Your task to perform on an android device: change the clock display to digital Image 0: 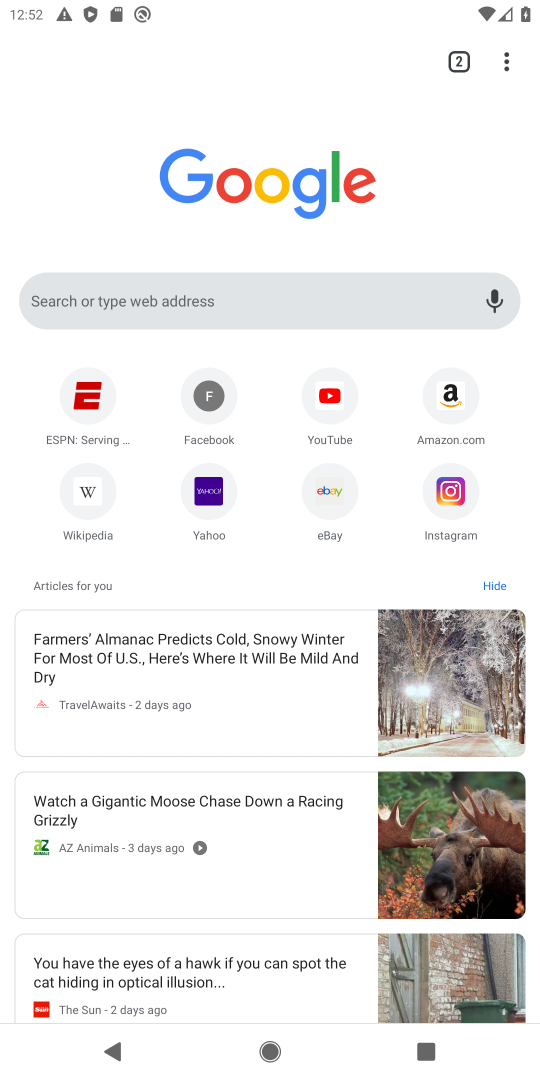
Step 0: press home button
Your task to perform on an android device: change the clock display to digital Image 1: 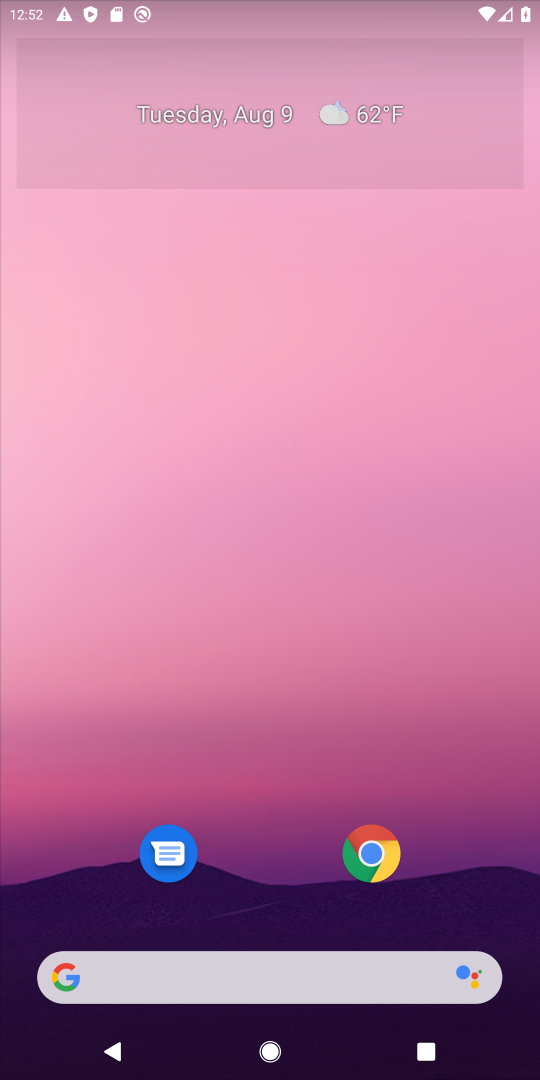
Step 1: drag from (257, 796) to (288, 17)
Your task to perform on an android device: change the clock display to digital Image 2: 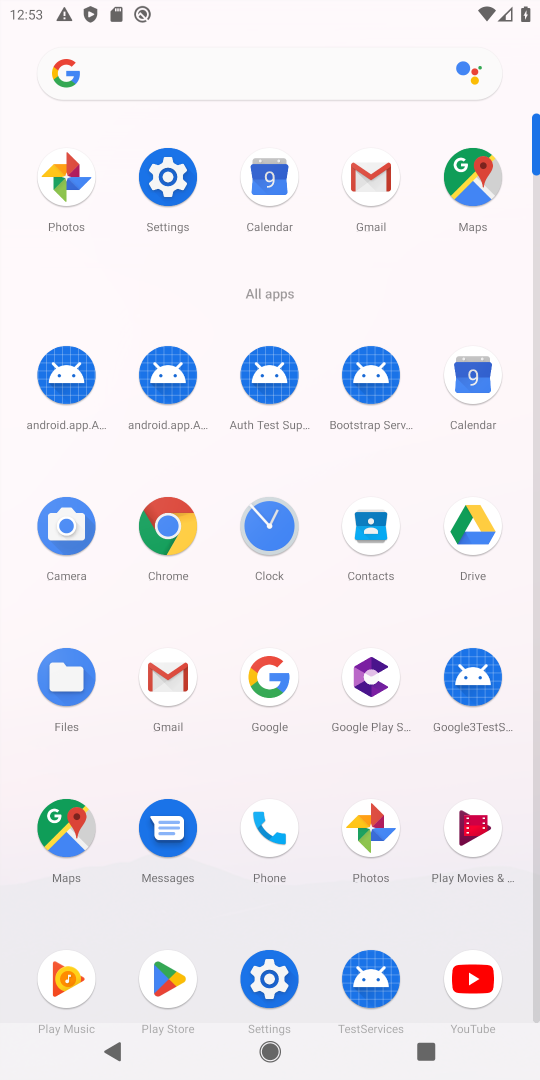
Step 2: click (264, 520)
Your task to perform on an android device: change the clock display to digital Image 3: 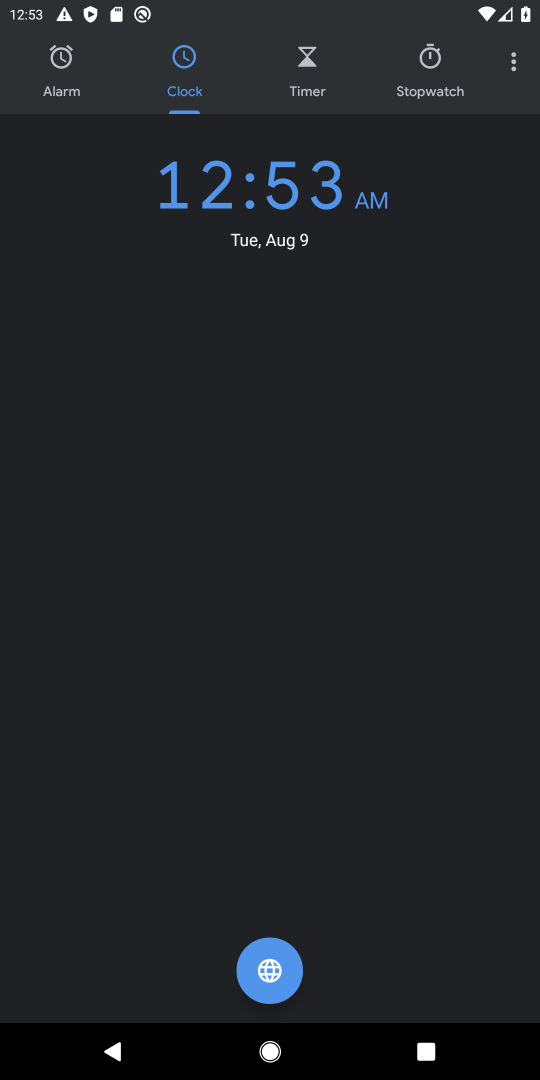
Step 3: click (510, 57)
Your task to perform on an android device: change the clock display to digital Image 4: 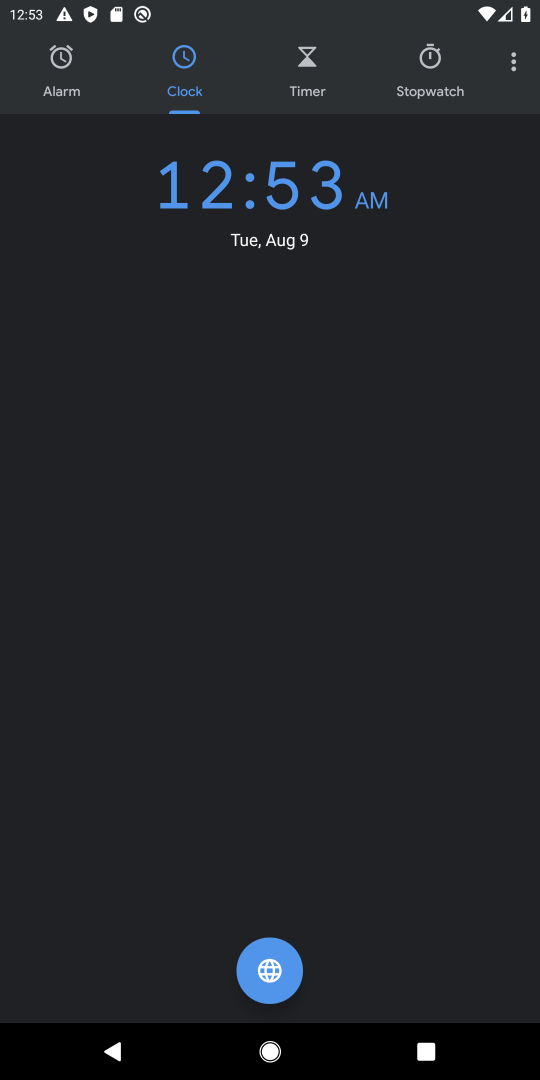
Step 4: click (507, 58)
Your task to perform on an android device: change the clock display to digital Image 5: 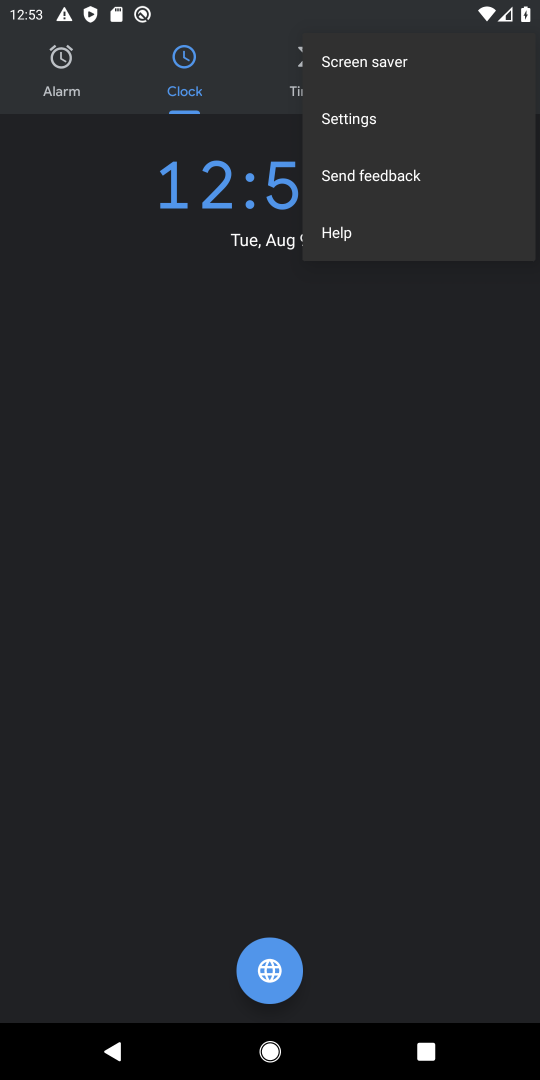
Step 5: click (358, 121)
Your task to perform on an android device: change the clock display to digital Image 6: 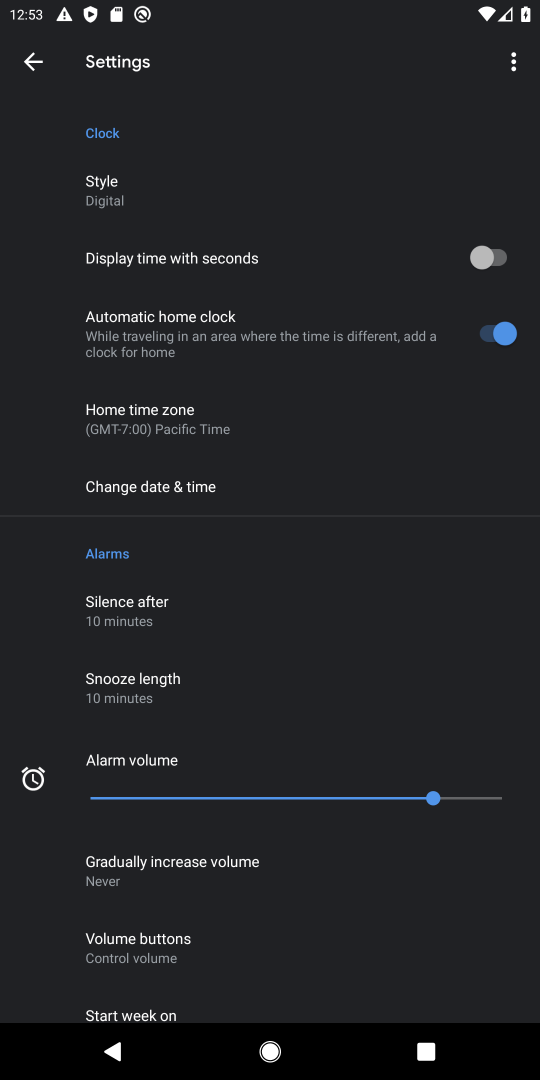
Step 6: click (155, 184)
Your task to perform on an android device: change the clock display to digital Image 7: 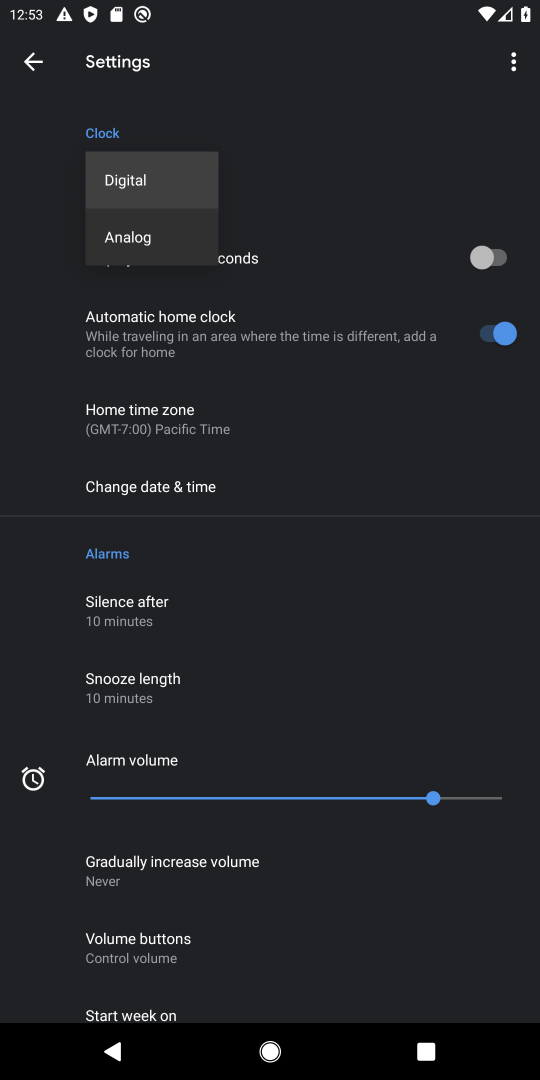
Step 7: click (138, 244)
Your task to perform on an android device: change the clock display to digital Image 8: 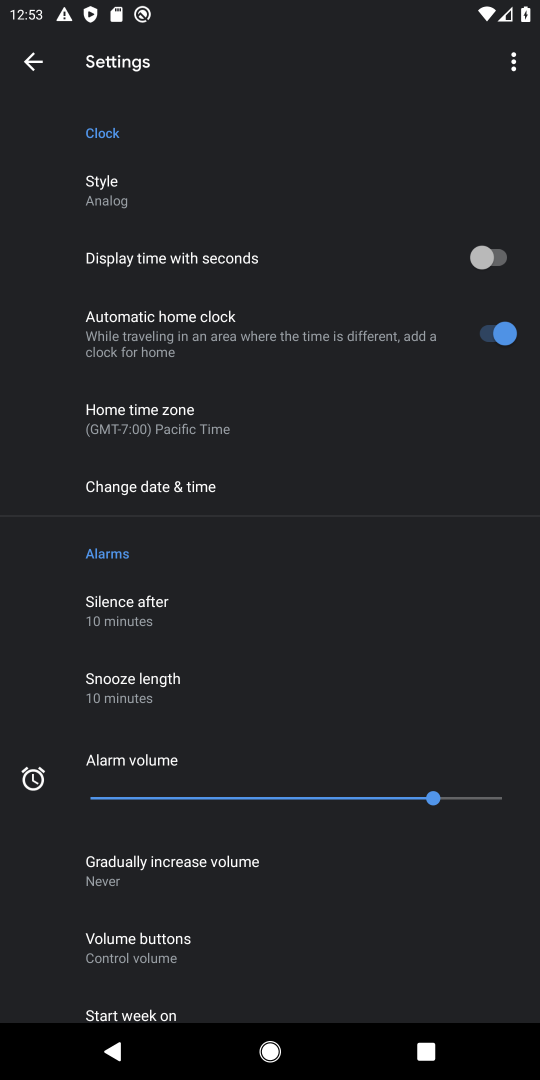
Step 8: click (137, 192)
Your task to perform on an android device: change the clock display to digital Image 9: 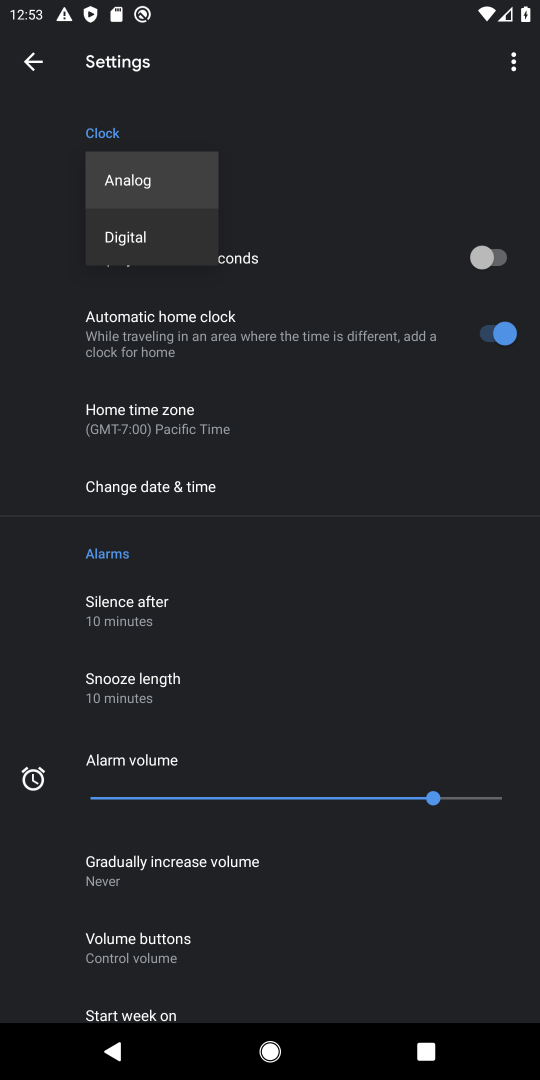
Step 9: click (119, 240)
Your task to perform on an android device: change the clock display to digital Image 10: 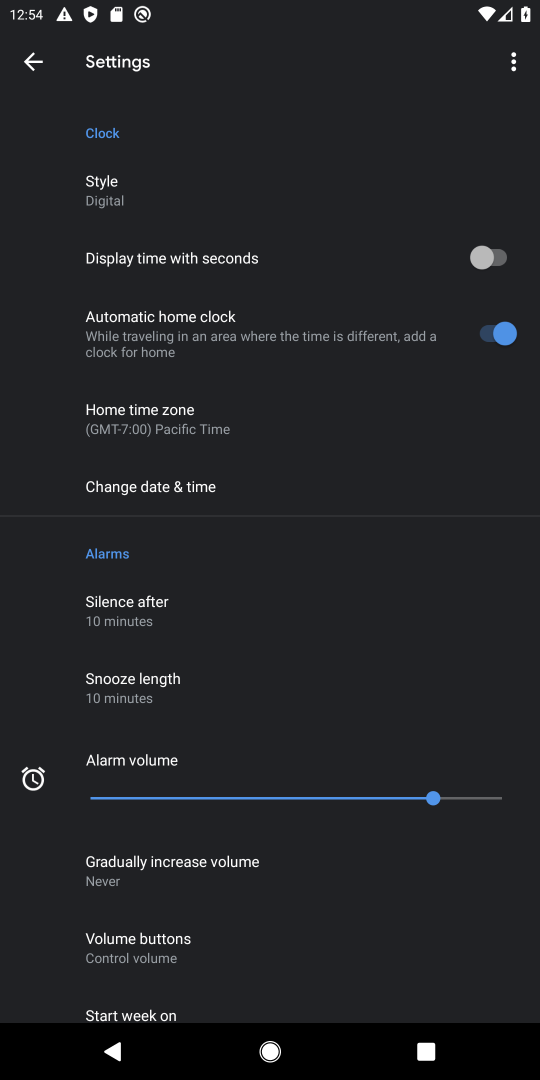
Step 10: task complete